Your task to perform on an android device: Show the shopping cart on bestbuy. Image 0: 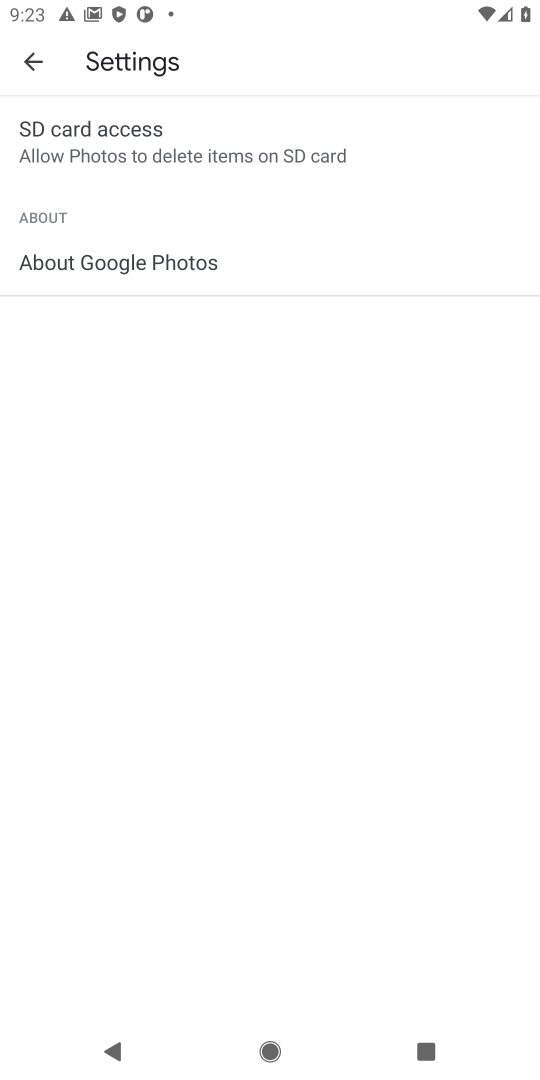
Step 0: press home button
Your task to perform on an android device: Show the shopping cart on bestbuy. Image 1: 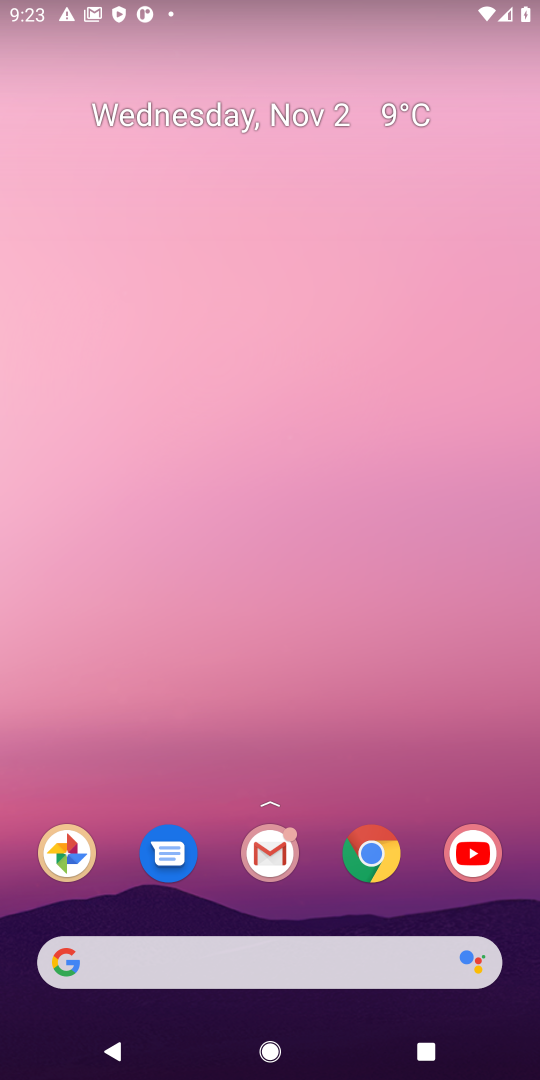
Step 1: click (371, 843)
Your task to perform on an android device: Show the shopping cart on bestbuy. Image 2: 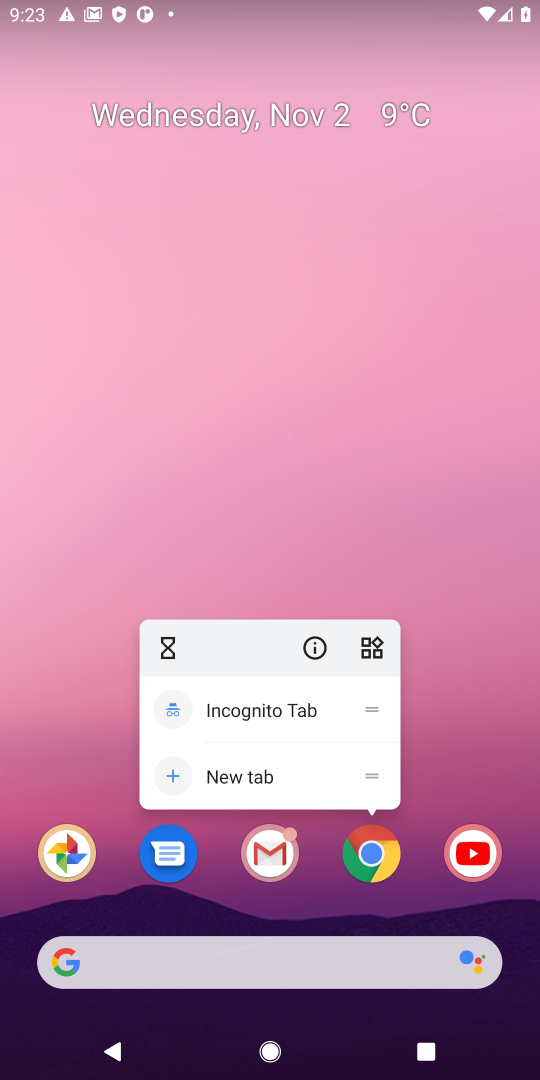
Step 2: click (370, 855)
Your task to perform on an android device: Show the shopping cart on bestbuy. Image 3: 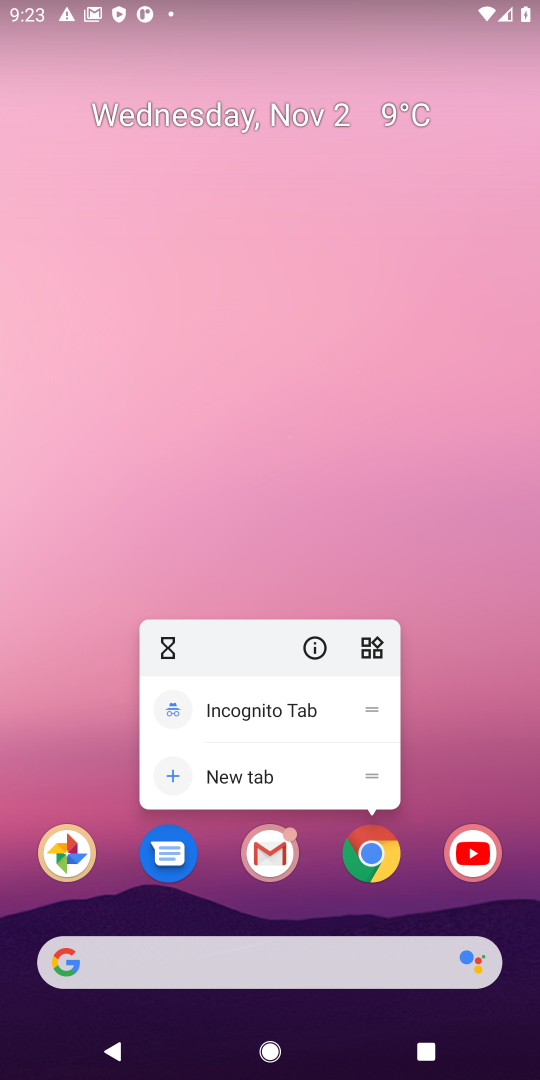
Step 3: click (370, 855)
Your task to perform on an android device: Show the shopping cart on bestbuy. Image 4: 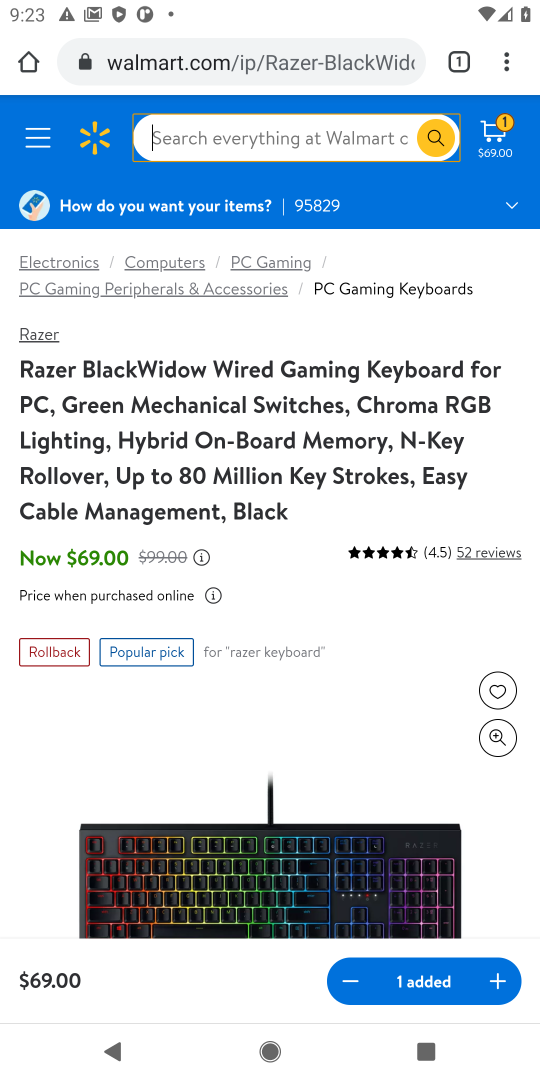
Step 4: click (293, 60)
Your task to perform on an android device: Show the shopping cart on bestbuy. Image 5: 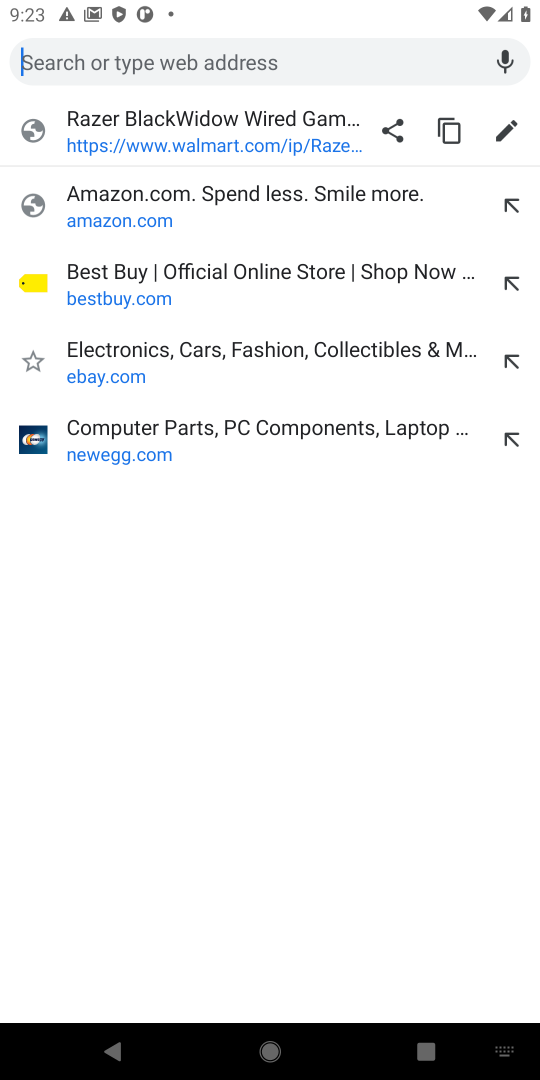
Step 5: type "bestbuy"
Your task to perform on an android device: Show the shopping cart on bestbuy. Image 6: 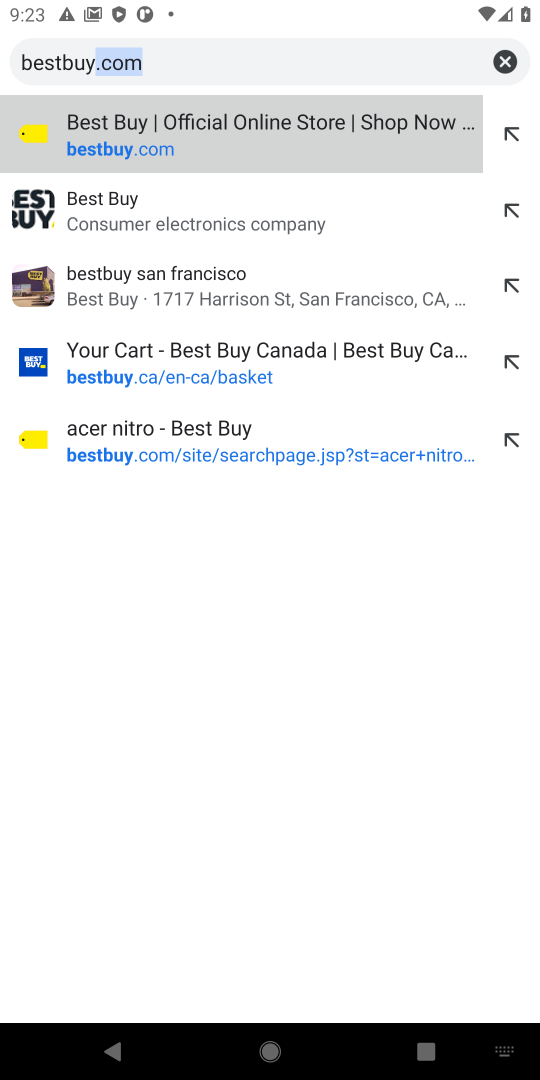
Step 6: press enter
Your task to perform on an android device: Show the shopping cart on bestbuy. Image 7: 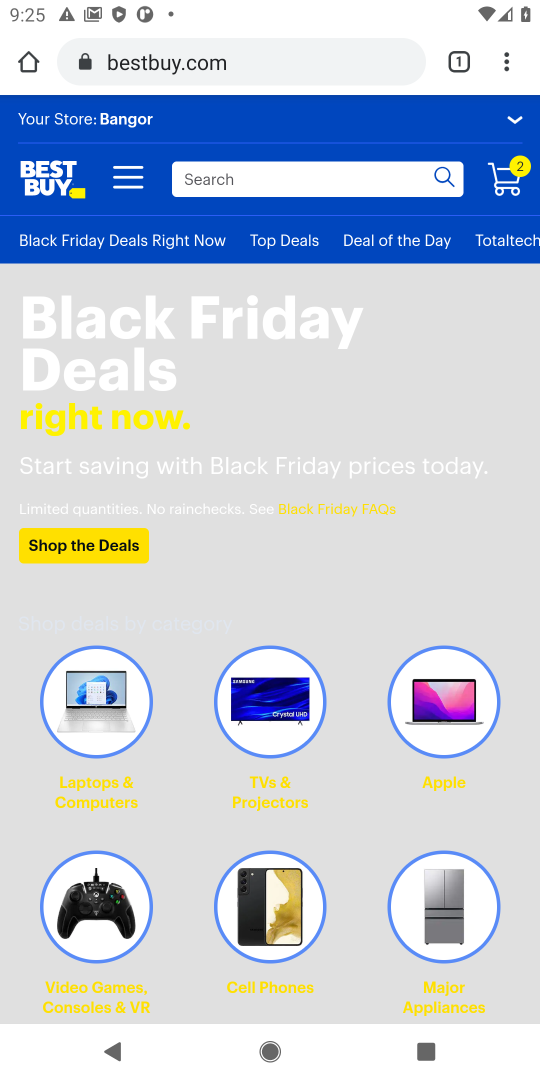
Step 7: click (497, 182)
Your task to perform on an android device: Show the shopping cart on bestbuy. Image 8: 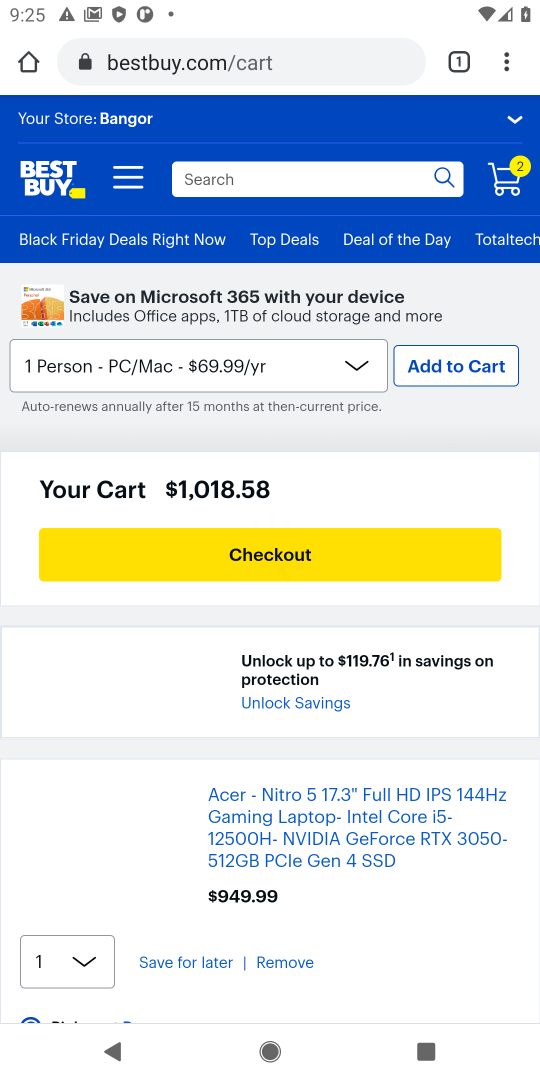
Step 8: click (511, 173)
Your task to perform on an android device: Show the shopping cart on bestbuy. Image 9: 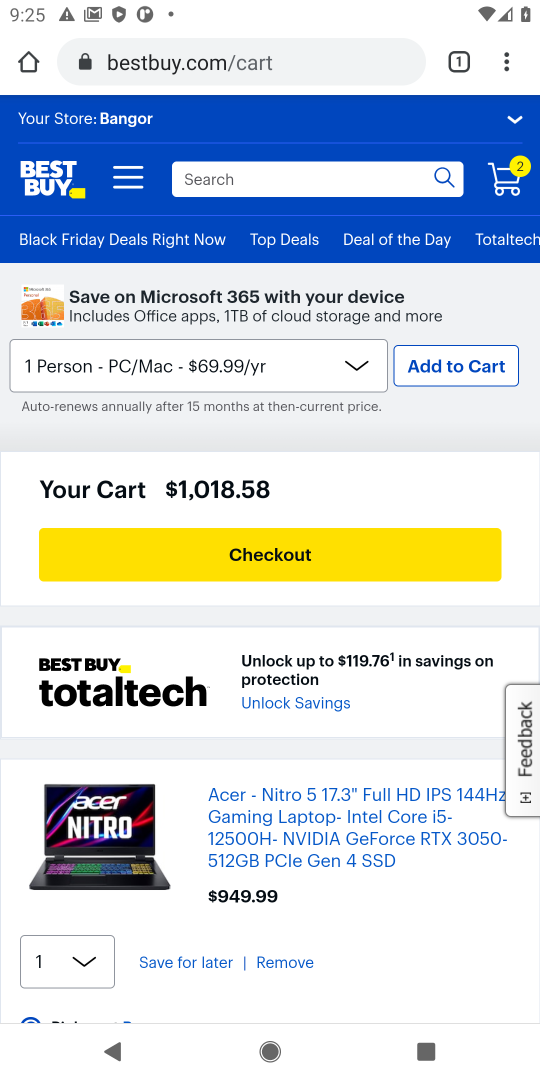
Step 9: task complete